Your task to perform on an android device: open a new tab in the chrome app Image 0: 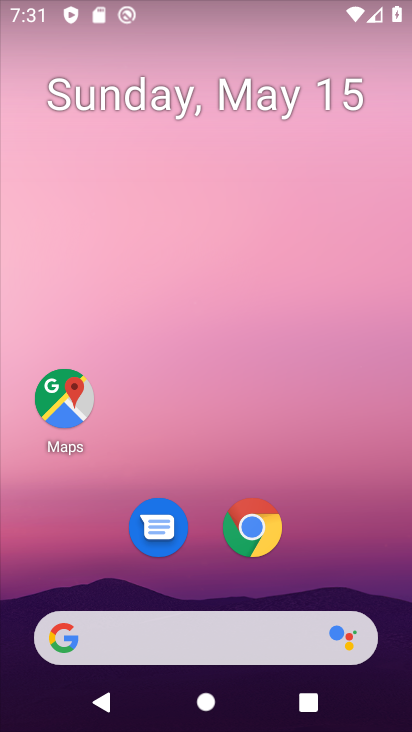
Step 0: click (253, 544)
Your task to perform on an android device: open a new tab in the chrome app Image 1: 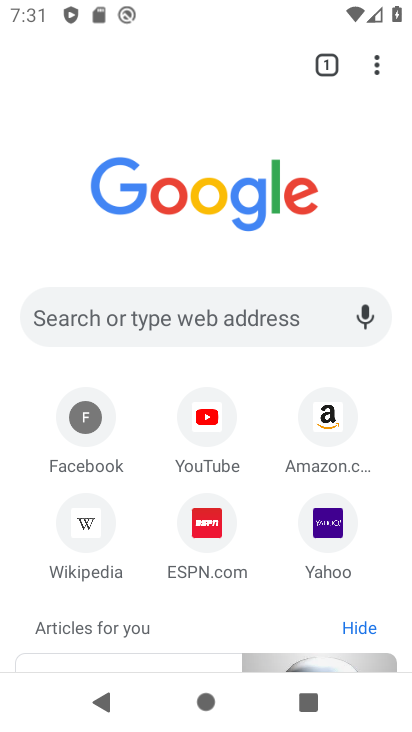
Step 1: task complete